Your task to perform on an android device: Toggle the flashlight Image 0: 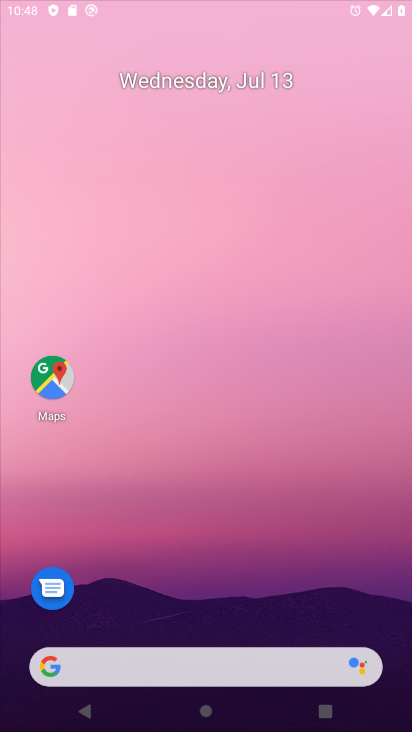
Step 0: drag from (306, 250) to (386, 129)
Your task to perform on an android device: Toggle the flashlight Image 1: 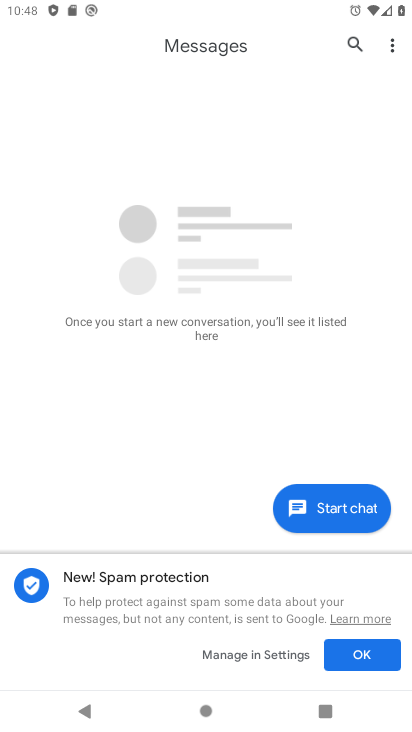
Step 1: task complete